Your task to perform on an android device: Go to display settings Image 0: 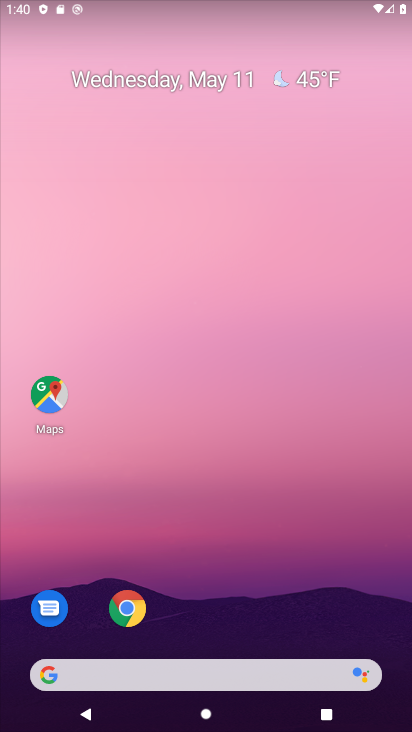
Step 0: drag from (207, 623) to (138, 111)
Your task to perform on an android device: Go to display settings Image 1: 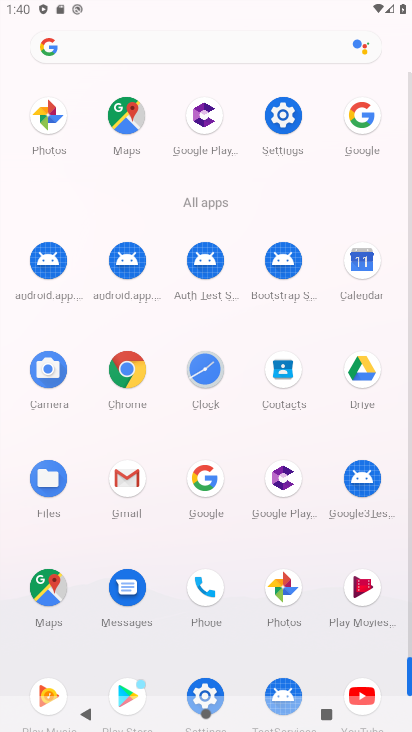
Step 1: click (277, 106)
Your task to perform on an android device: Go to display settings Image 2: 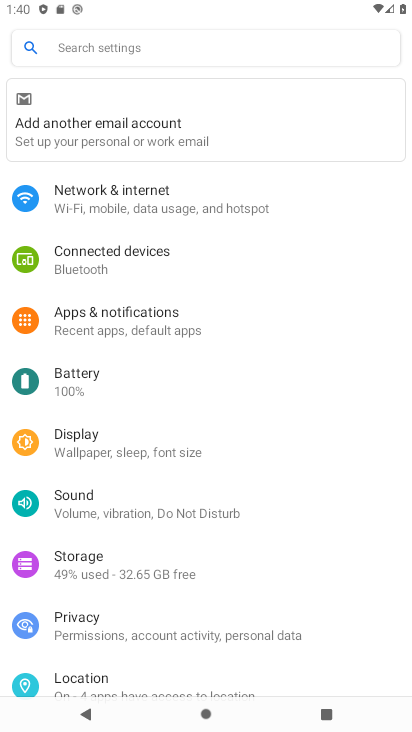
Step 2: click (141, 457)
Your task to perform on an android device: Go to display settings Image 3: 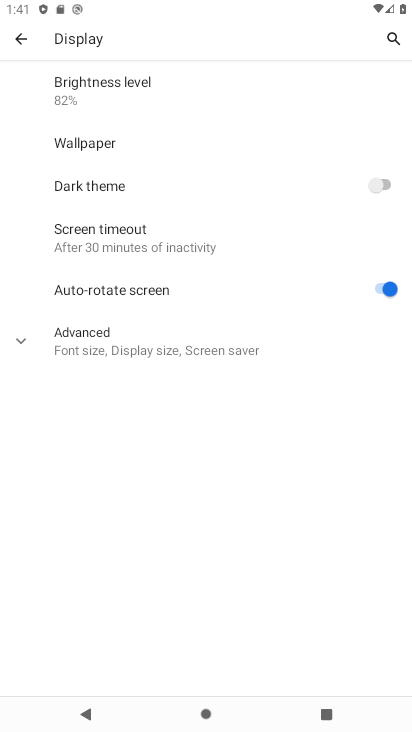
Step 3: task complete